Your task to perform on an android device: Open Google Chrome and open the bookmarks view Image 0: 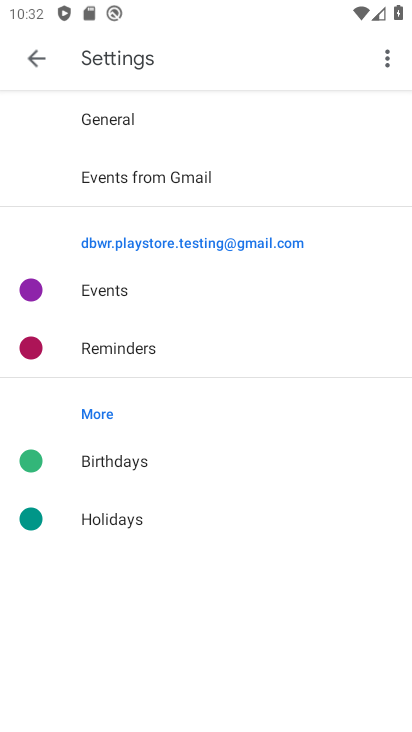
Step 0: press home button
Your task to perform on an android device: Open Google Chrome and open the bookmarks view Image 1: 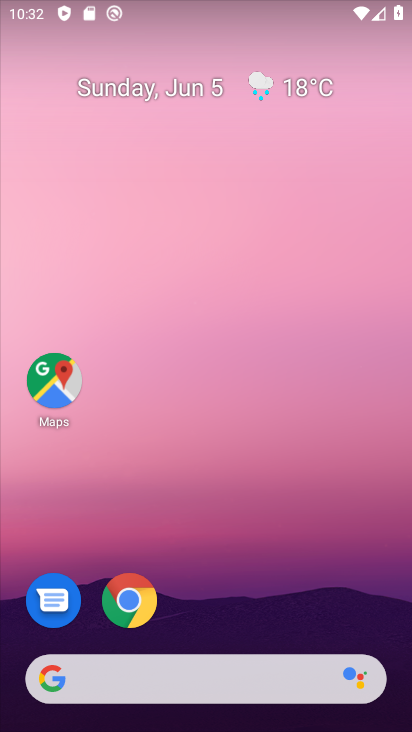
Step 1: click (142, 600)
Your task to perform on an android device: Open Google Chrome and open the bookmarks view Image 2: 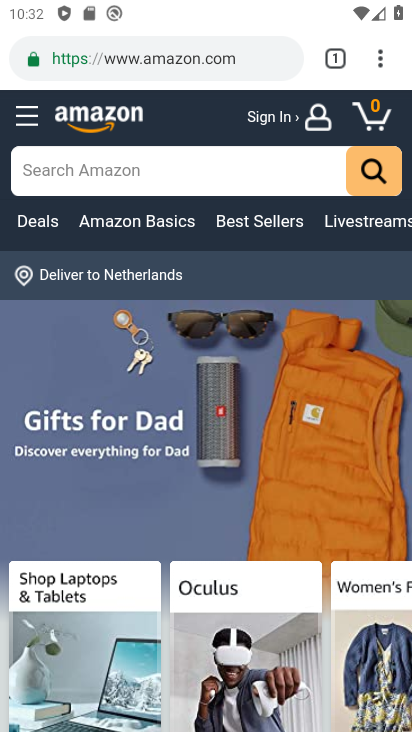
Step 2: click (378, 60)
Your task to perform on an android device: Open Google Chrome and open the bookmarks view Image 3: 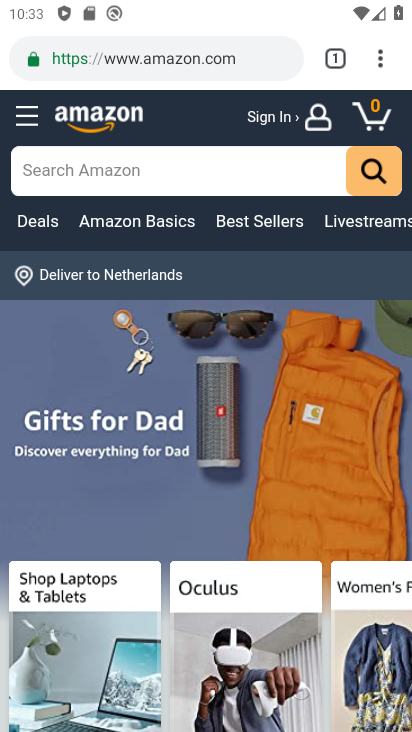
Step 3: click (383, 62)
Your task to perform on an android device: Open Google Chrome and open the bookmarks view Image 4: 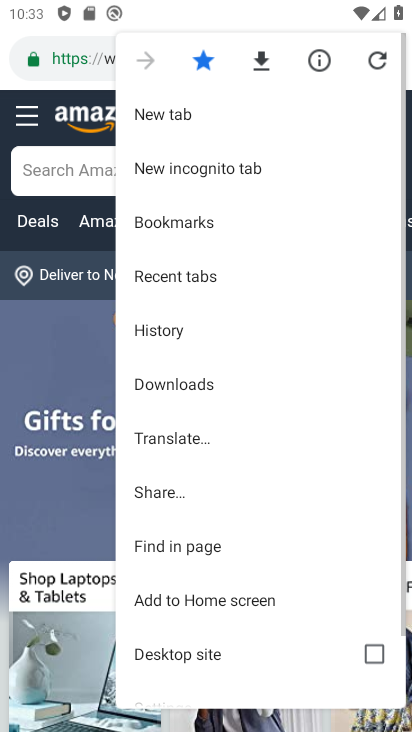
Step 4: click (168, 218)
Your task to perform on an android device: Open Google Chrome and open the bookmarks view Image 5: 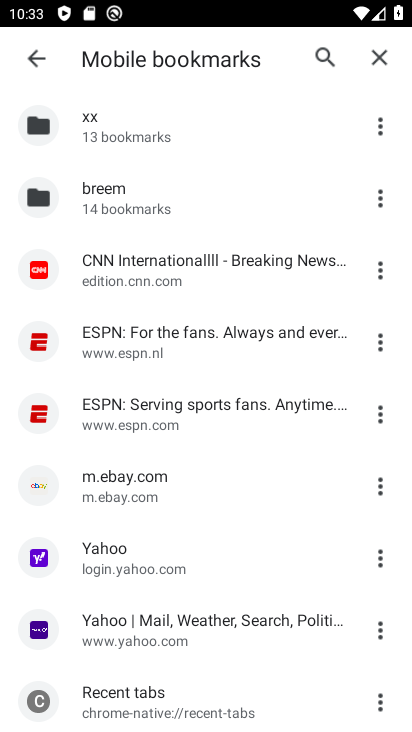
Step 5: task complete